Your task to perform on an android device: Go to network settings Image 0: 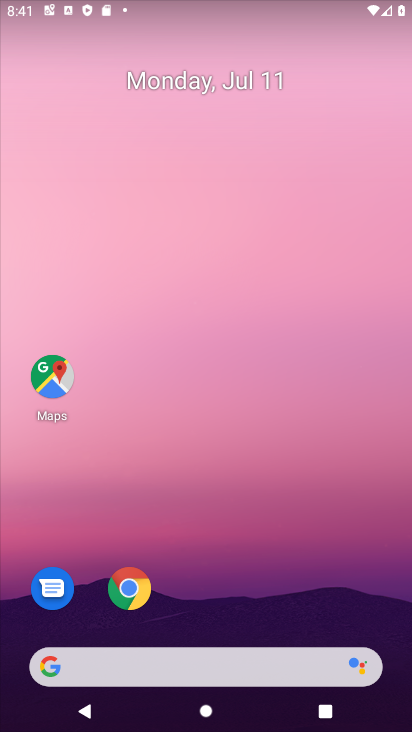
Step 0: drag from (395, 662) to (381, 89)
Your task to perform on an android device: Go to network settings Image 1: 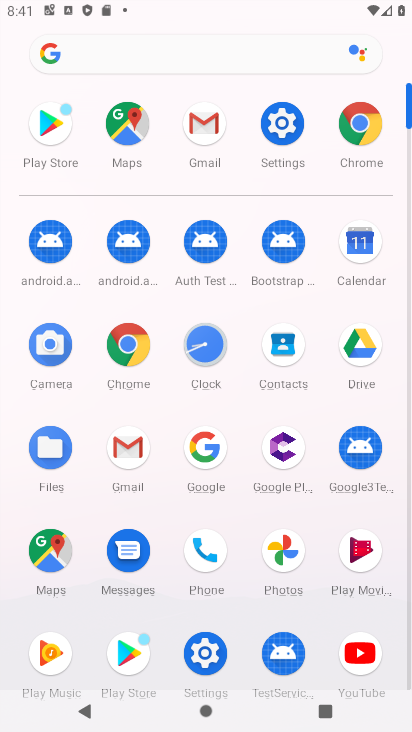
Step 1: click (273, 138)
Your task to perform on an android device: Go to network settings Image 2: 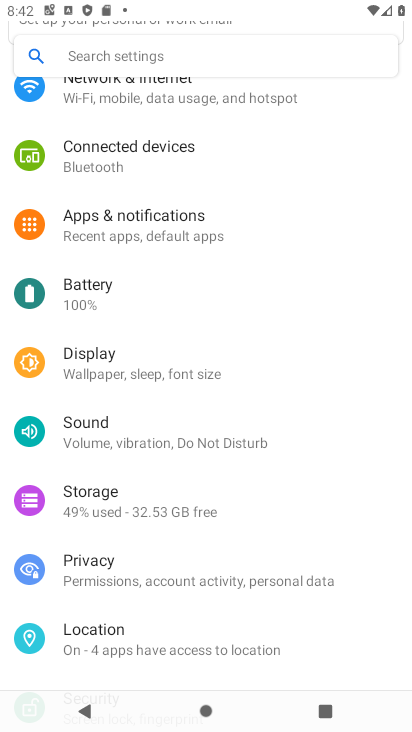
Step 2: drag from (259, 155) to (380, 684)
Your task to perform on an android device: Go to network settings Image 3: 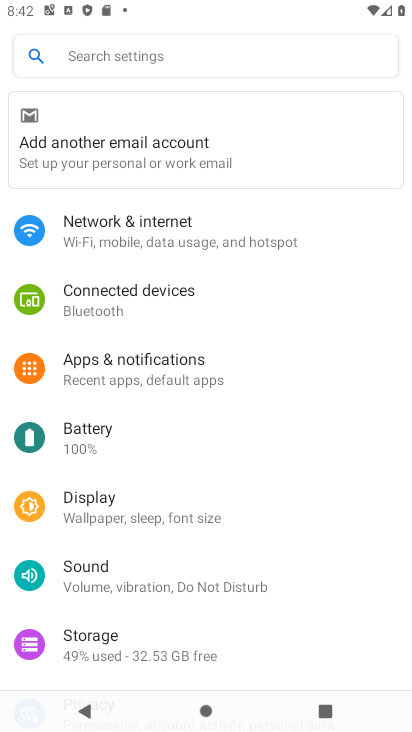
Step 3: click (257, 247)
Your task to perform on an android device: Go to network settings Image 4: 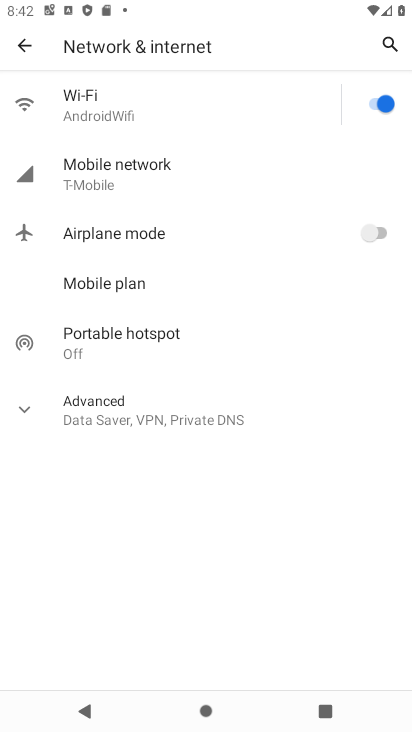
Step 4: task complete